Your task to perform on an android device: Open calendar and show me the first week of next month Image 0: 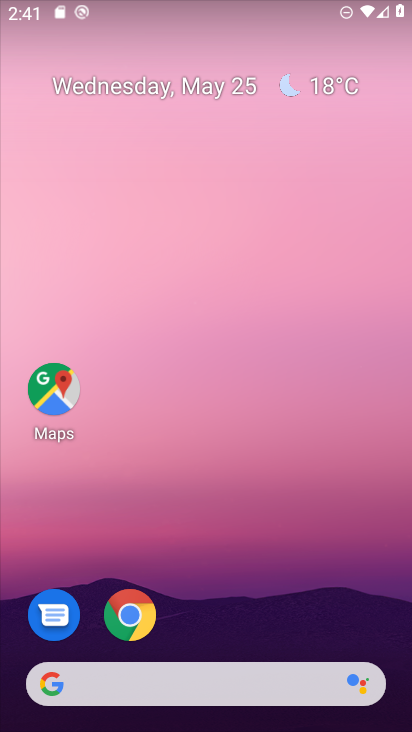
Step 0: drag from (316, 570) to (295, 57)
Your task to perform on an android device: Open calendar and show me the first week of next month Image 1: 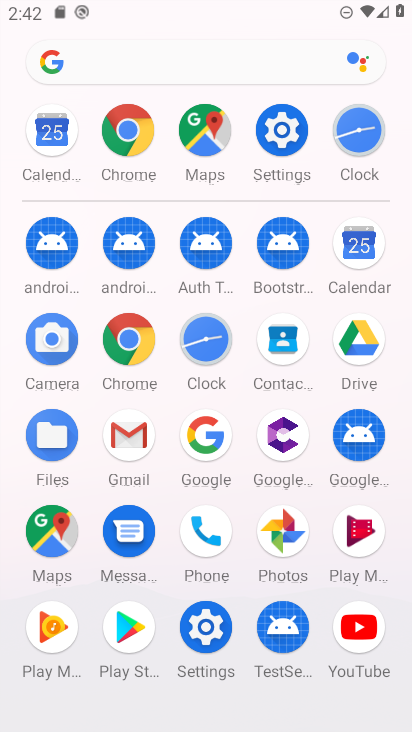
Step 1: click (61, 137)
Your task to perform on an android device: Open calendar and show me the first week of next month Image 2: 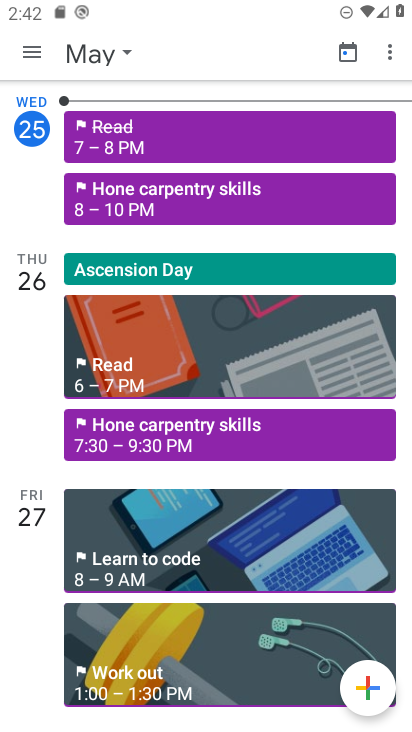
Step 2: click (38, 53)
Your task to perform on an android device: Open calendar and show me the first week of next month Image 3: 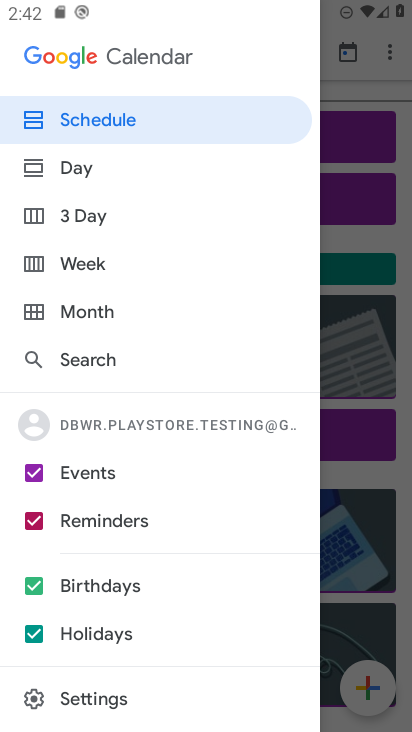
Step 3: click (43, 261)
Your task to perform on an android device: Open calendar and show me the first week of next month Image 4: 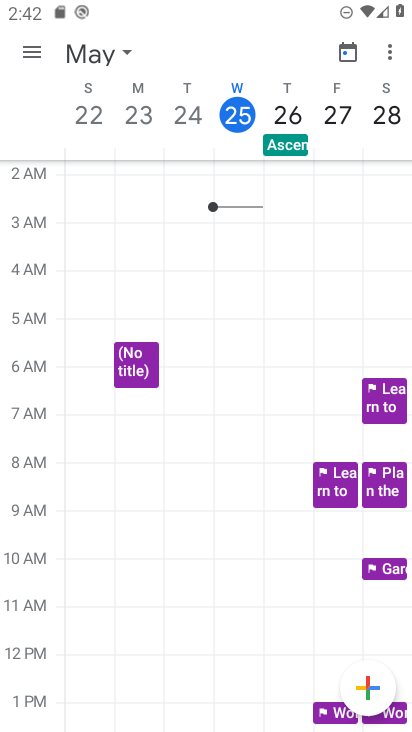
Step 4: task complete